Your task to perform on an android device: turn on bluetooth scan Image 0: 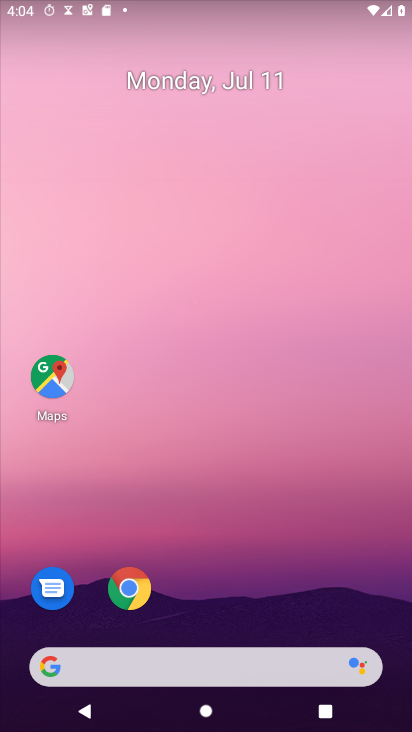
Step 0: drag from (222, 604) to (263, 32)
Your task to perform on an android device: turn on bluetooth scan Image 1: 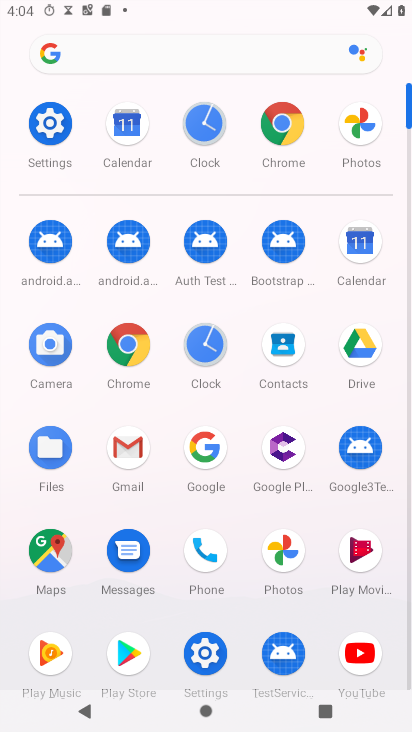
Step 1: click (43, 132)
Your task to perform on an android device: turn on bluetooth scan Image 2: 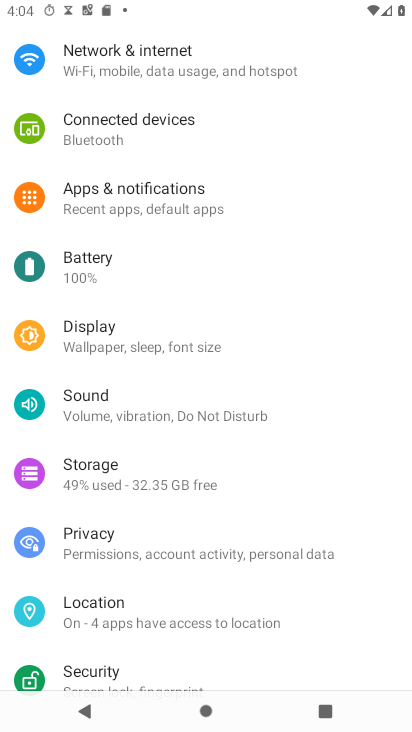
Step 2: click (124, 599)
Your task to perform on an android device: turn on bluetooth scan Image 3: 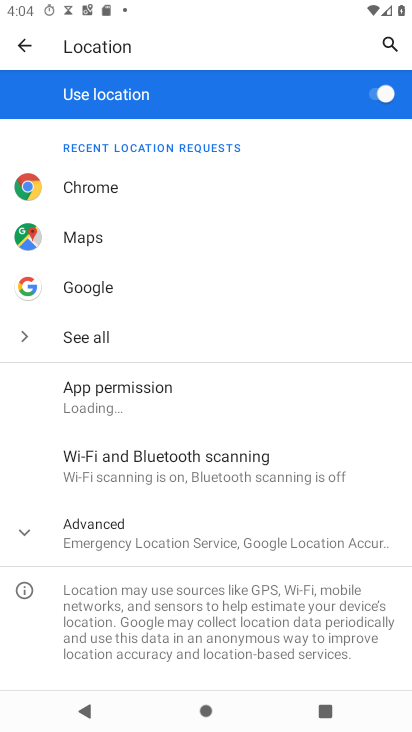
Step 3: click (160, 472)
Your task to perform on an android device: turn on bluetooth scan Image 4: 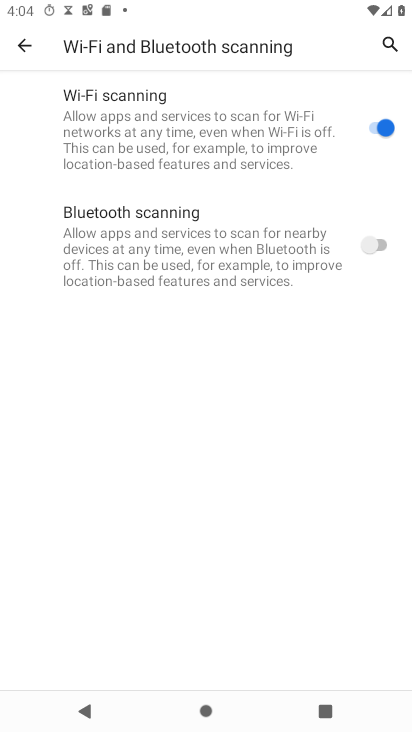
Step 4: click (384, 251)
Your task to perform on an android device: turn on bluetooth scan Image 5: 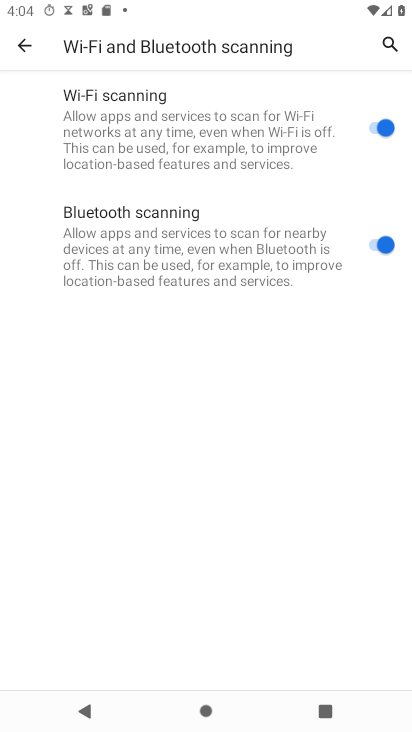
Step 5: task complete